Your task to perform on an android device: allow cookies in the chrome app Image 0: 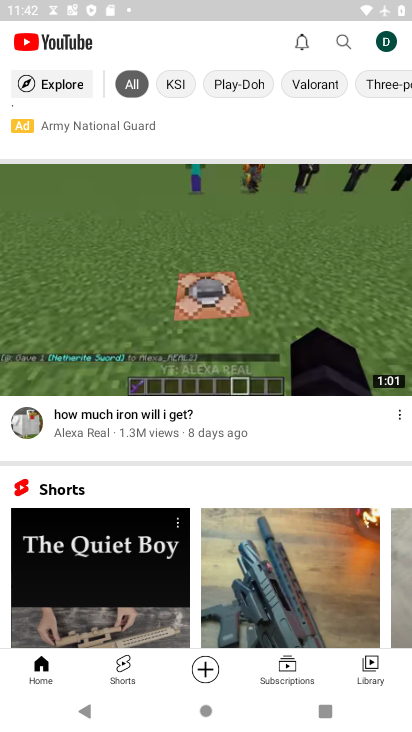
Step 0: press home button
Your task to perform on an android device: allow cookies in the chrome app Image 1: 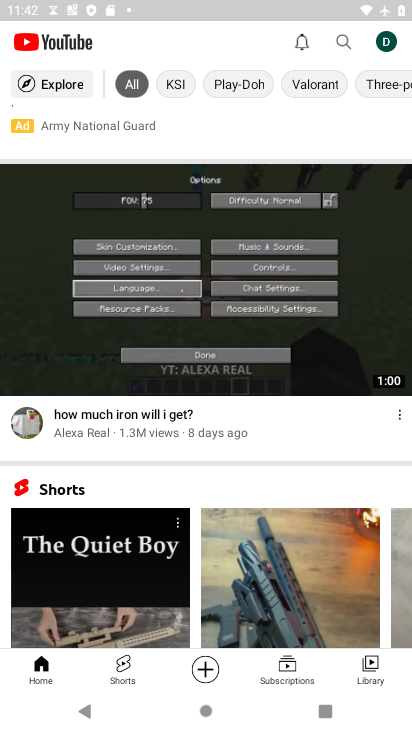
Step 1: press home button
Your task to perform on an android device: allow cookies in the chrome app Image 2: 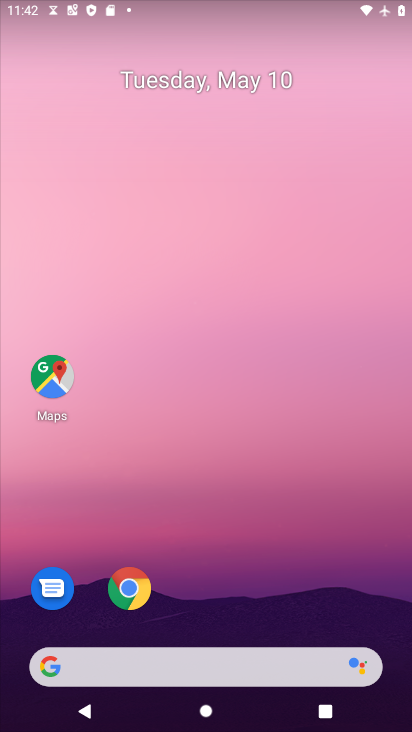
Step 2: drag from (315, 624) to (141, 262)
Your task to perform on an android device: allow cookies in the chrome app Image 3: 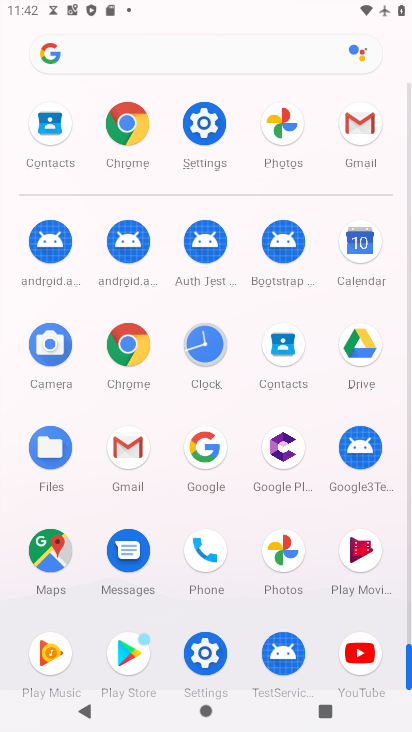
Step 3: click (138, 338)
Your task to perform on an android device: allow cookies in the chrome app Image 4: 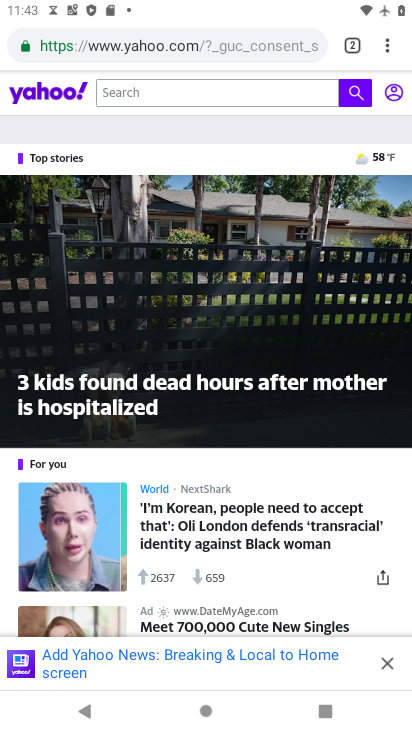
Step 4: drag from (386, 48) to (235, 549)
Your task to perform on an android device: allow cookies in the chrome app Image 5: 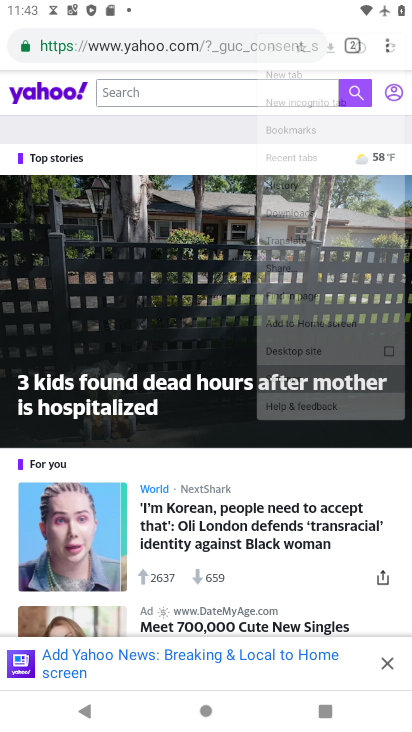
Step 5: click (236, 546)
Your task to perform on an android device: allow cookies in the chrome app Image 6: 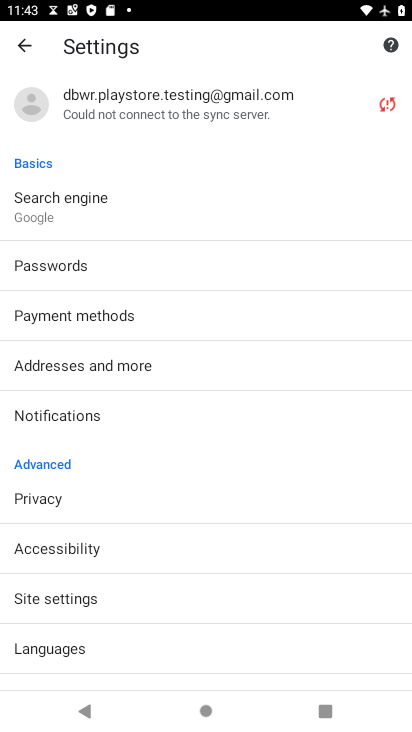
Step 6: click (49, 594)
Your task to perform on an android device: allow cookies in the chrome app Image 7: 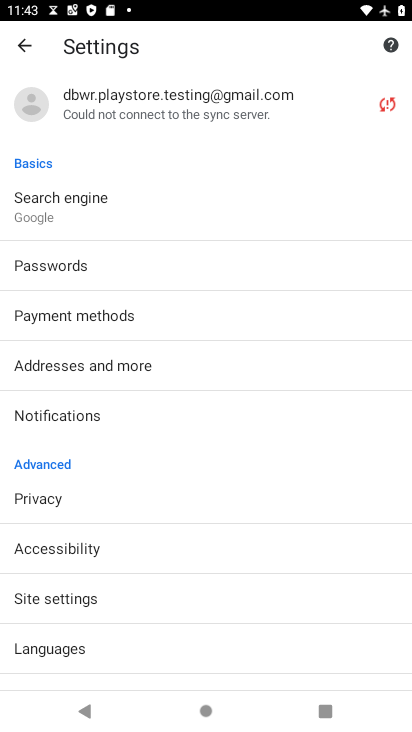
Step 7: click (48, 594)
Your task to perform on an android device: allow cookies in the chrome app Image 8: 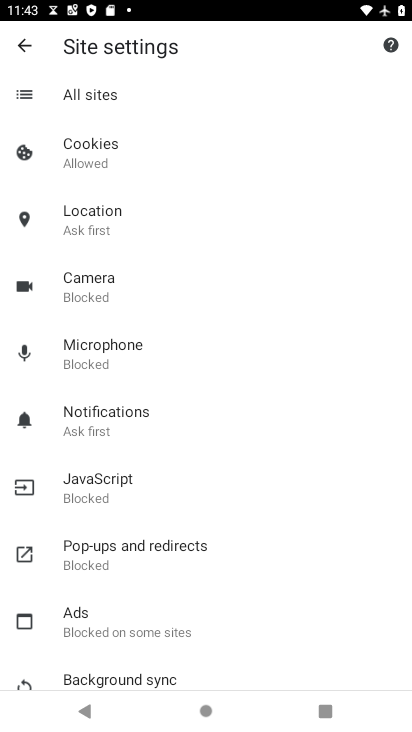
Step 8: click (99, 152)
Your task to perform on an android device: allow cookies in the chrome app Image 9: 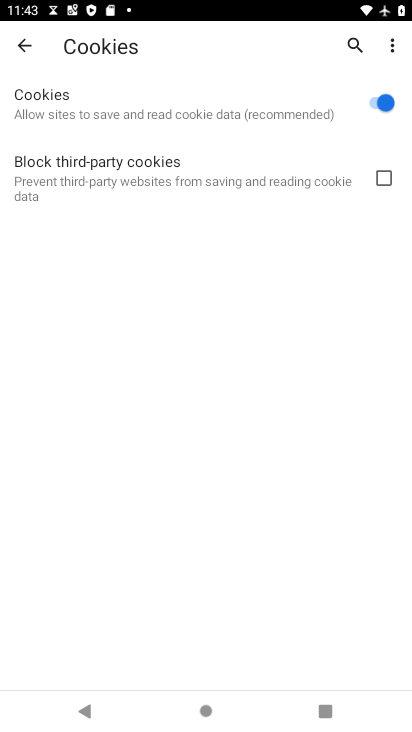
Step 9: task complete